Your task to perform on an android device: Show me the alarms in the clock app Image 0: 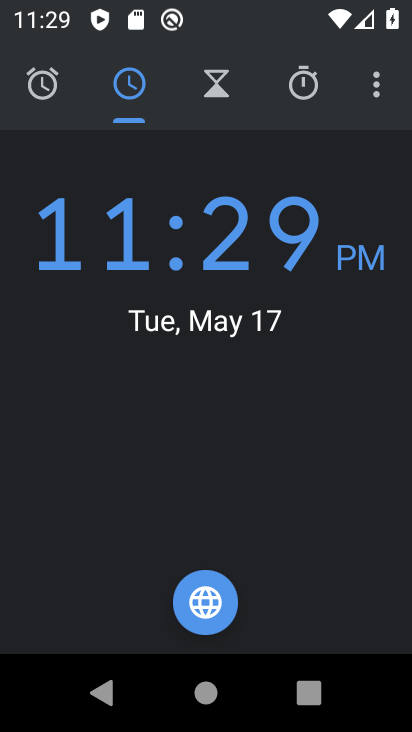
Step 0: click (56, 92)
Your task to perform on an android device: Show me the alarms in the clock app Image 1: 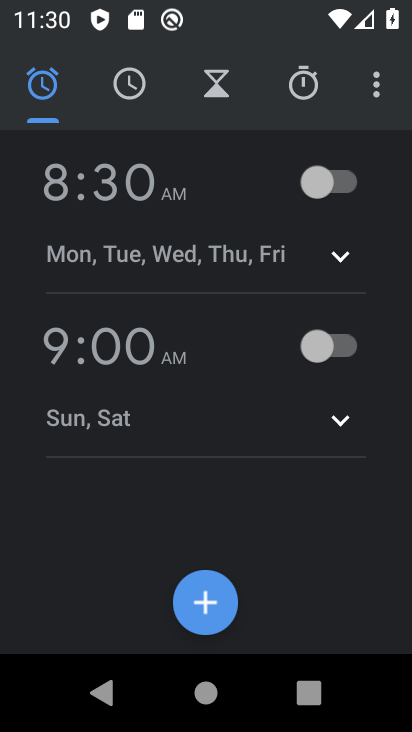
Step 1: task complete